Your task to perform on an android device: Show the shopping cart on costco.com. Search for apple airpods pro on costco.com, select the first entry, add it to the cart, then select checkout. Image 0: 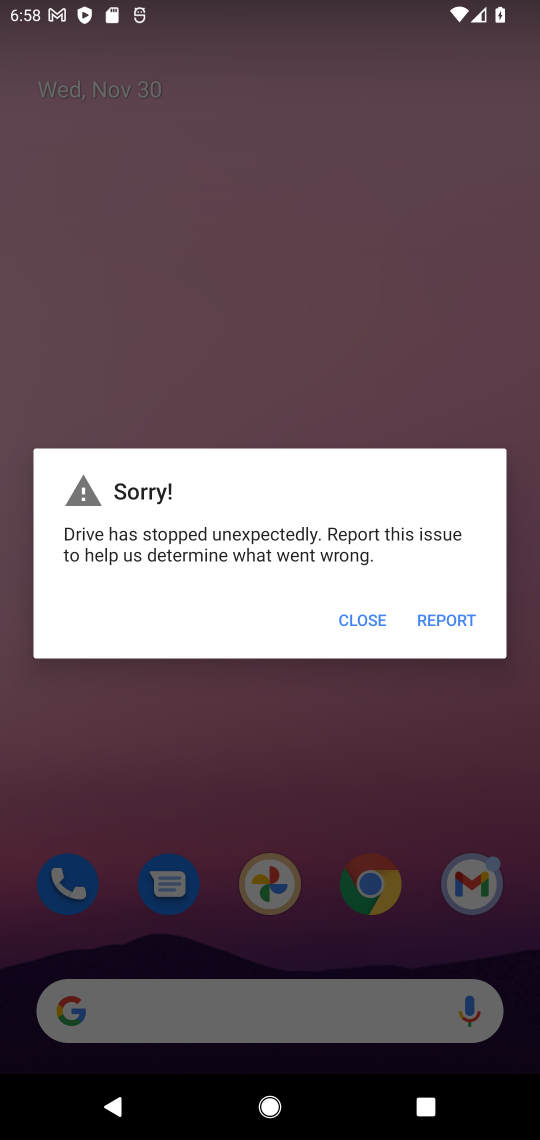
Step 0: press home button
Your task to perform on an android device: Show the shopping cart on costco.com. Search for apple airpods pro on costco.com, select the first entry, add it to the cart, then select checkout. Image 1: 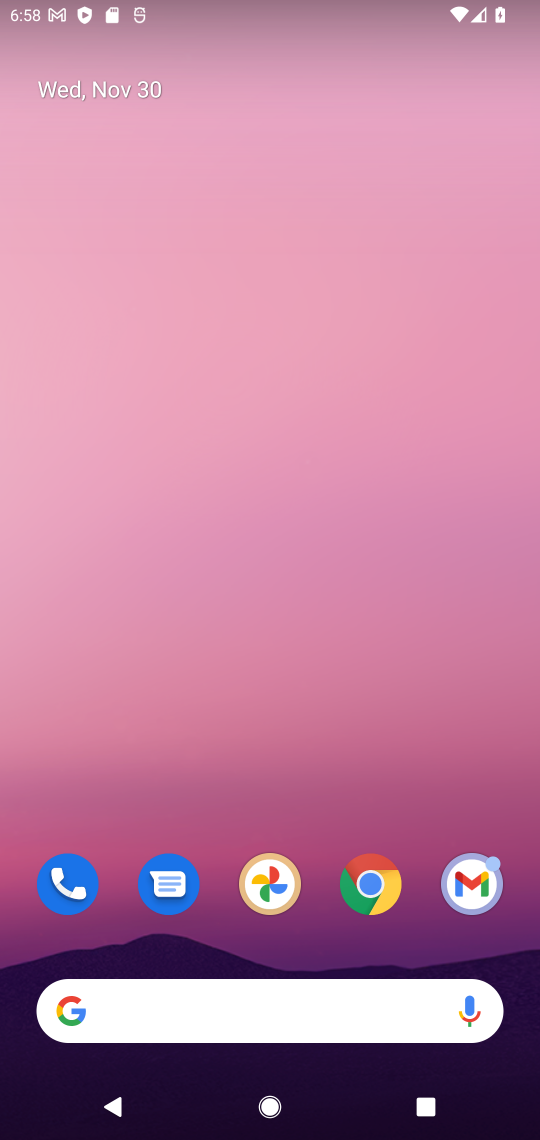
Step 1: click (358, 902)
Your task to perform on an android device: Show the shopping cart on costco.com. Search for apple airpods pro on costco.com, select the first entry, add it to the cart, then select checkout. Image 2: 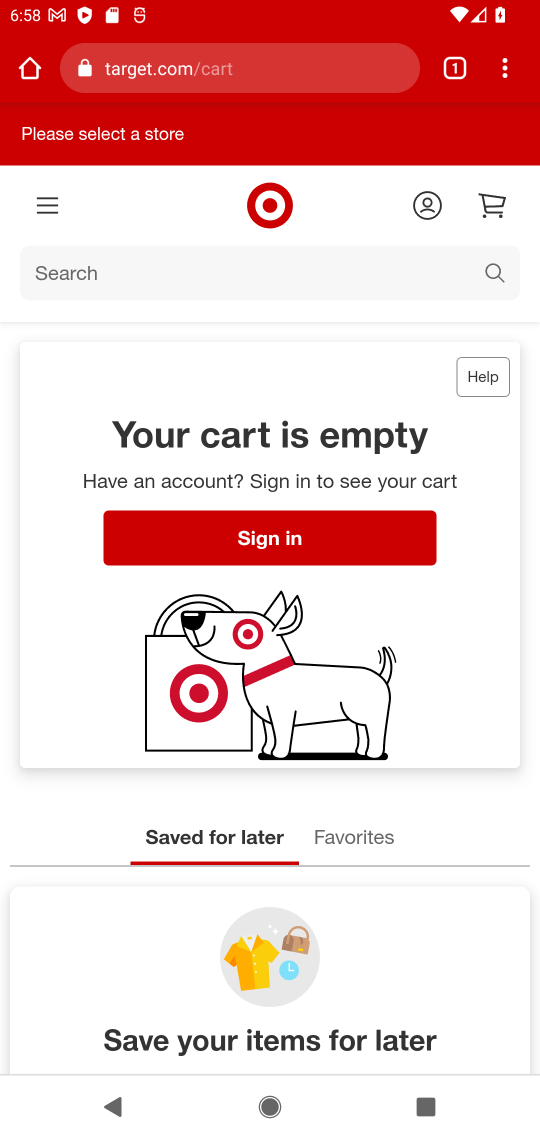
Step 2: click (206, 67)
Your task to perform on an android device: Show the shopping cart on costco.com. Search for apple airpods pro on costco.com, select the first entry, add it to the cart, then select checkout. Image 3: 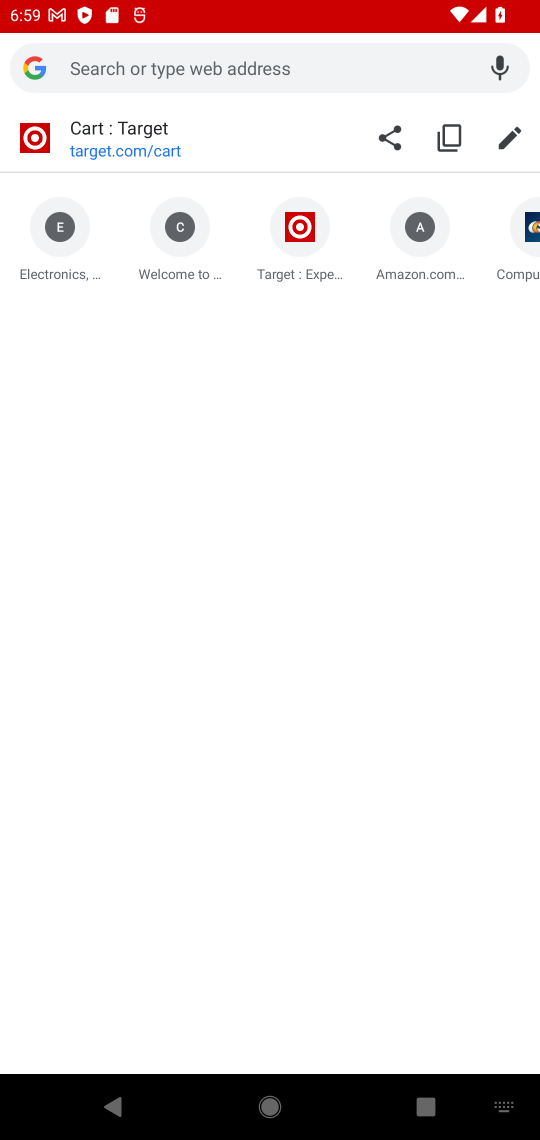
Step 3: type "costco.com"
Your task to perform on an android device: Show the shopping cart on costco.com. Search for apple airpods pro on costco.com, select the first entry, add it to the cart, then select checkout. Image 4: 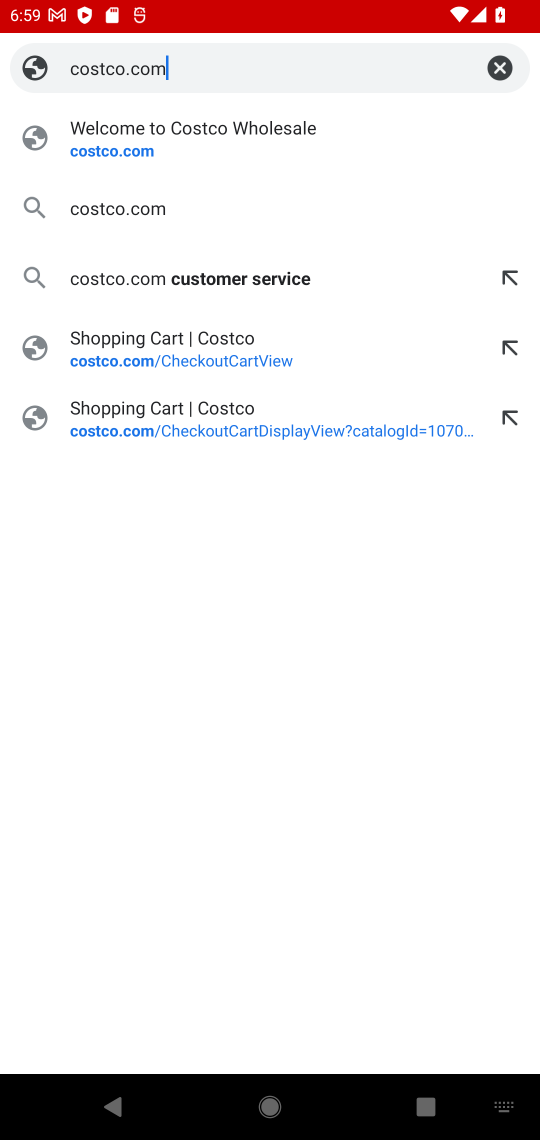
Step 4: click (105, 145)
Your task to perform on an android device: Show the shopping cart on costco.com. Search for apple airpods pro on costco.com, select the first entry, add it to the cart, then select checkout. Image 5: 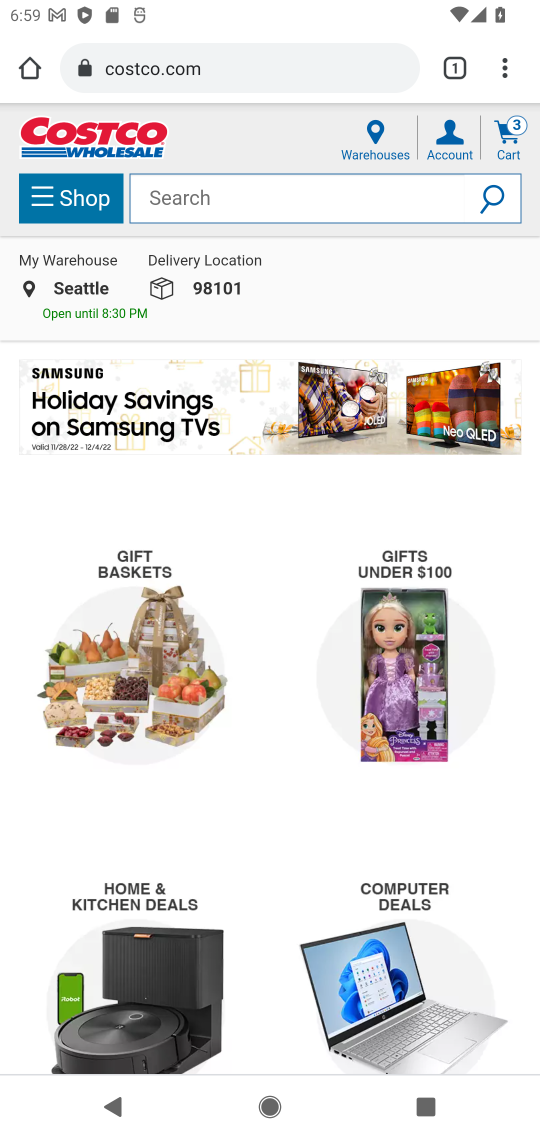
Step 5: click (505, 141)
Your task to perform on an android device: Show the shopping cart on costco.com. Search for apple airpods pro on costco.com, select the first entry, add it to the cart, then select checkout. Image 6: 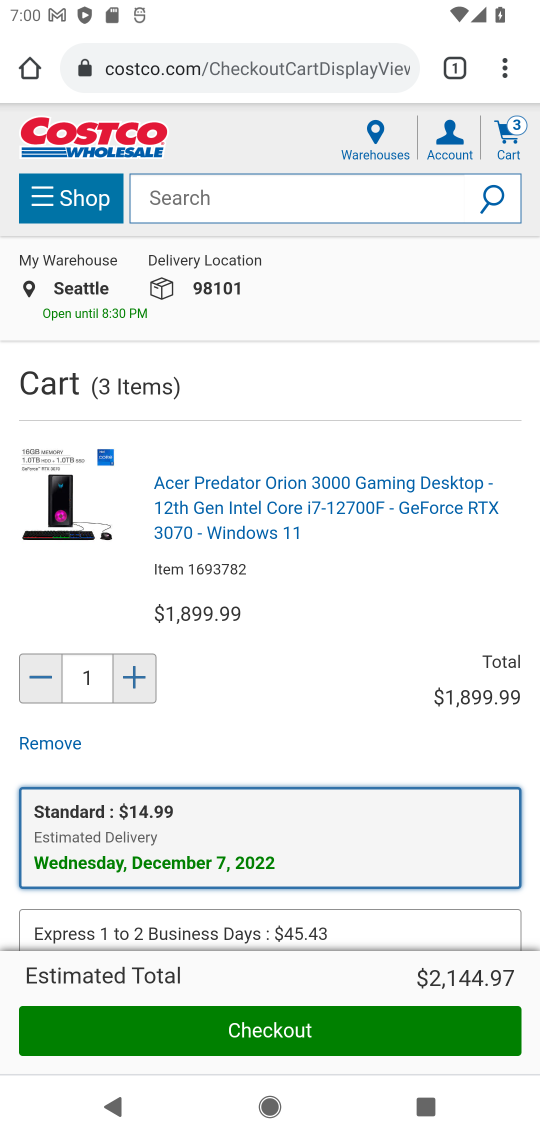
Step 6: click (185, 194)
Your task to perform on an android device: Show the shopping cart on costco.com. Search for apple airpods pro on costco.com, select the first entry, add it to the cart, then select checkout. Image 7: 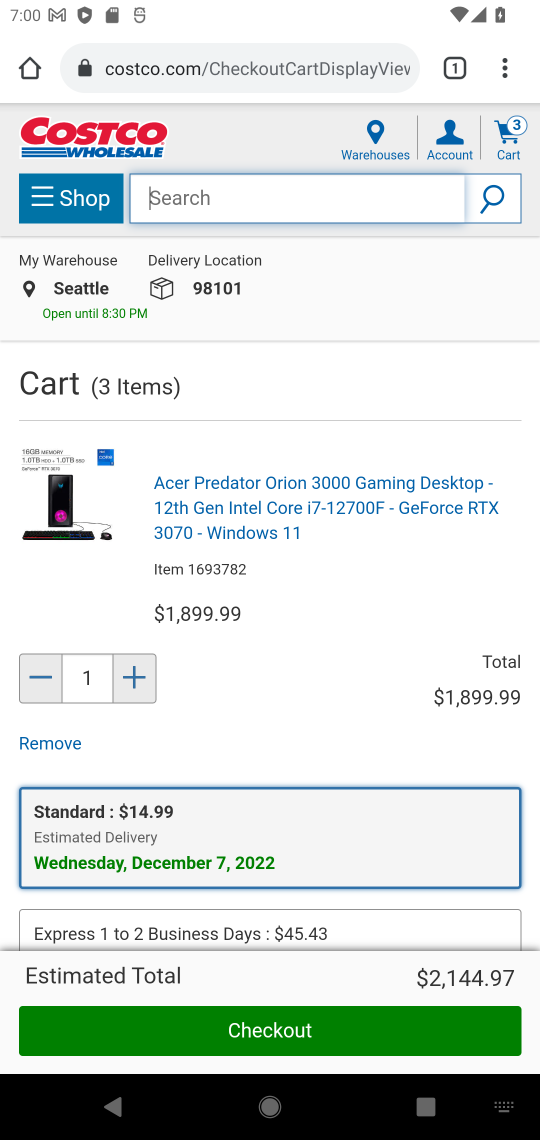
Step 7: type "apple airpods pro"
Your task to perform on an android device: Show the shopping cart on costco.com. Search for apple airpods pro on costco.com, select the first entry, add it to the cart, then select checkout. Image 8: 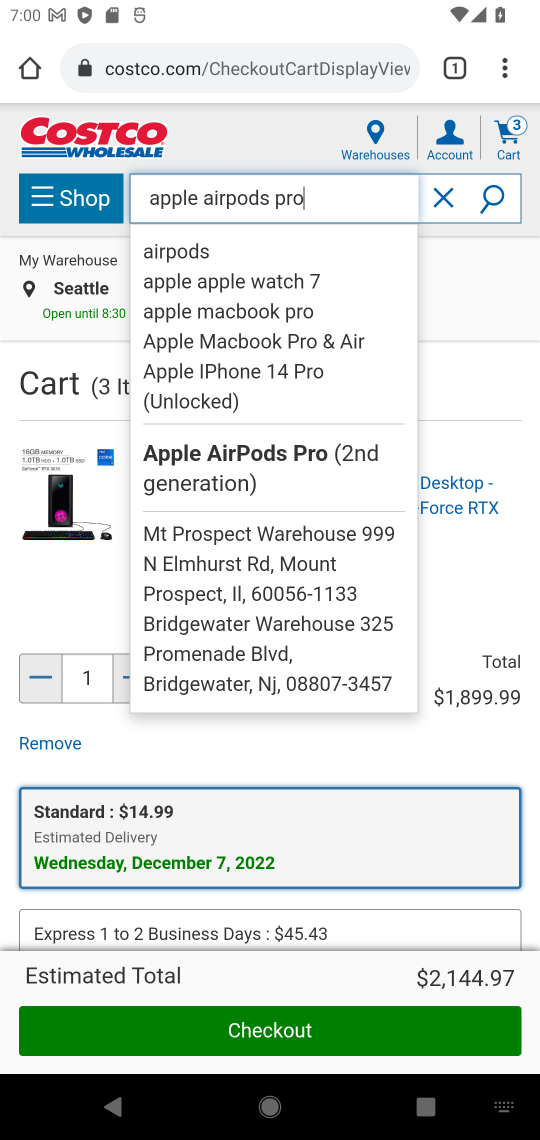
Step 8: click (497, 200)
Your task to perform on an android device: Show the shopping cart on costco.com. Search for apple airpods pro on costco.com, select the first entry, add it to the cart, then select checkout. Image 9: 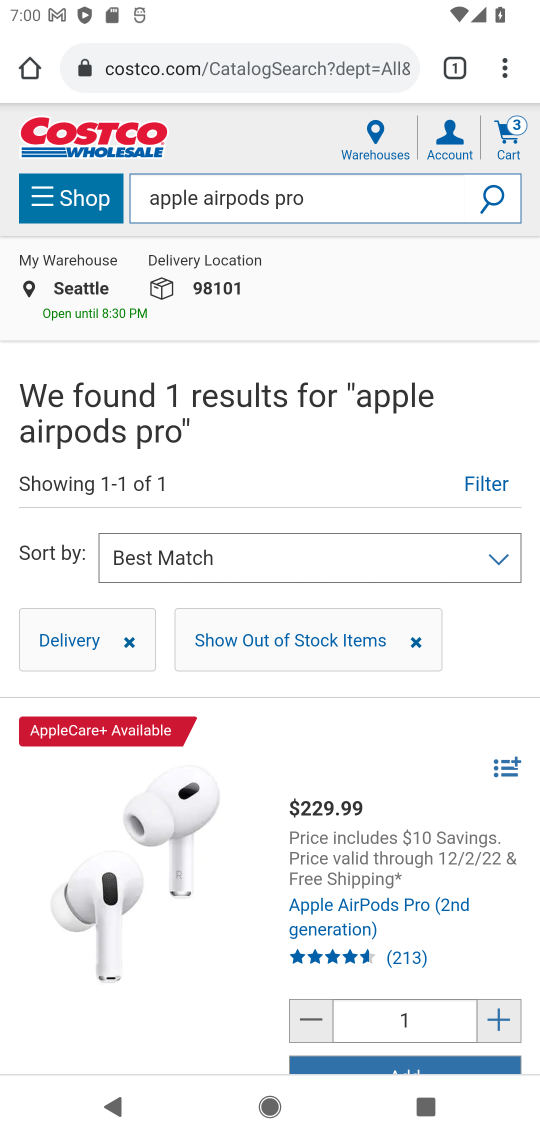
Step 9: drag from (260, 757) to (259, 370)
Your task to perform on an android device: Show the shopping cart on costco.com. Search for apple airpods pro on costco.com, select the first entry, add it to the cart, then select checkout. Image 10: 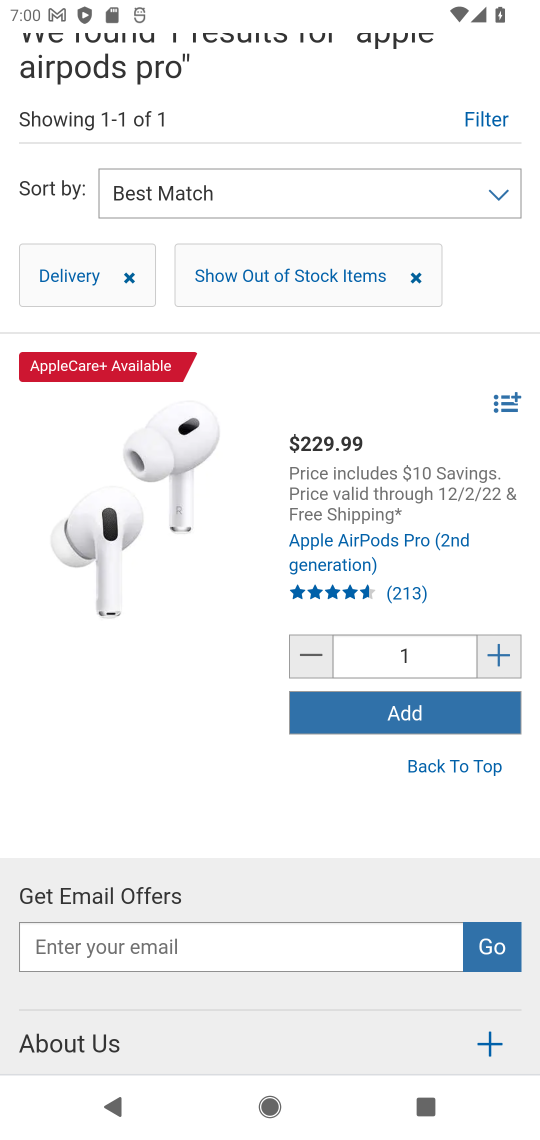
Step 10: click (416, 713)
Your task to perform on an android device: Show the shopping cart on costco.com. Search for apple airpods pro on costco.com, select the first entry, add it to the cart, then select checkout. Image 11: 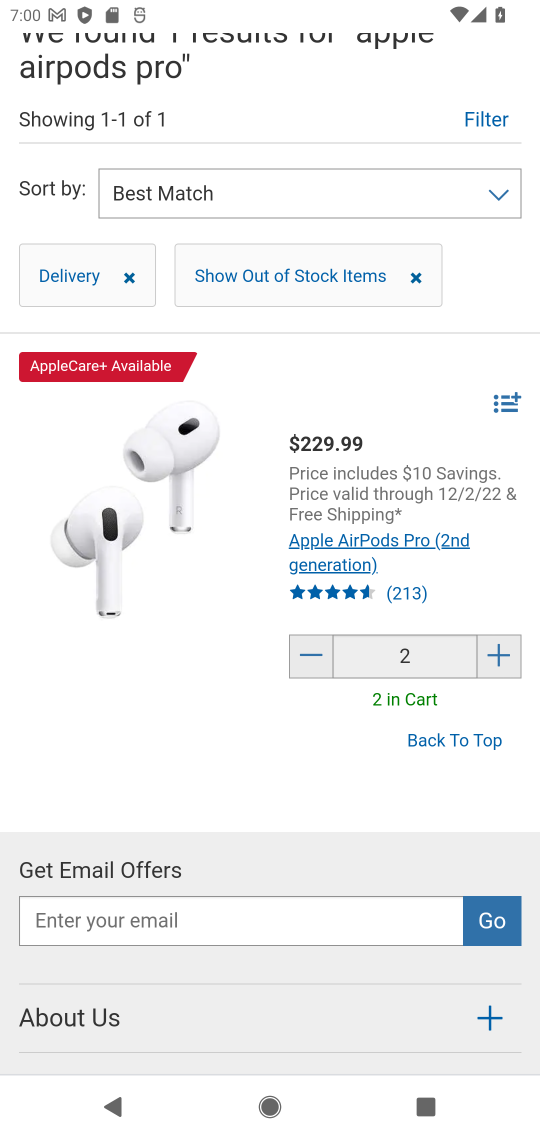
Step 11: drag from (413, 201) to (413, 609)
Your task to perform on an android device: Show the shopping cart on costco.com. Search for apple airpods pro on costco.com, select the first entry, add it to the cart, then select checkout. Image 12: 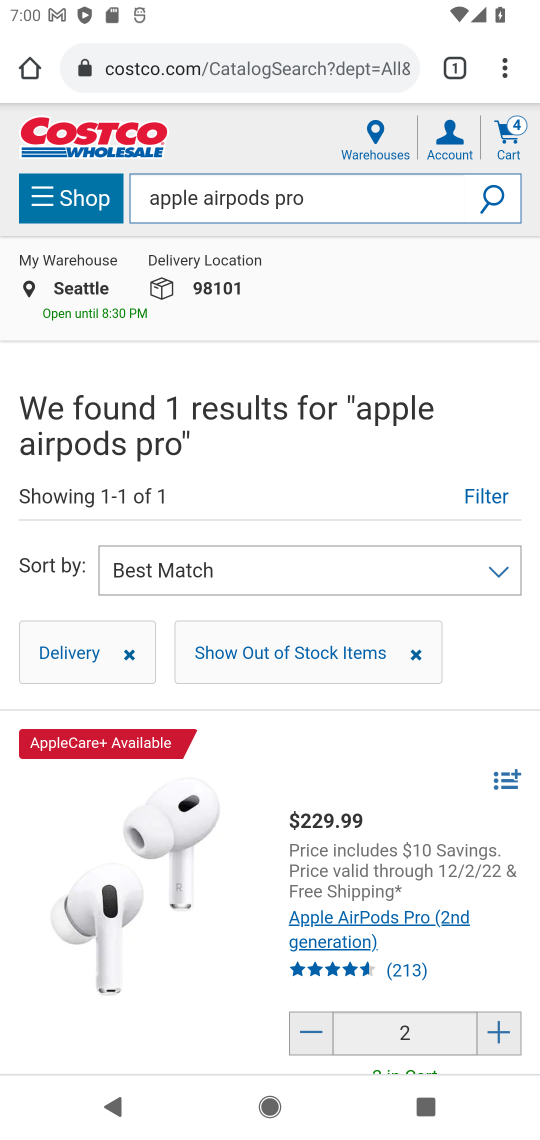
Step 12: click (506, 153)
Your task to perform on an android device: Show the shopping cart on costco.com. Search for apple airpods pro on costco.com, select the first entry, add it to the cart, then select checkout. Image 13: 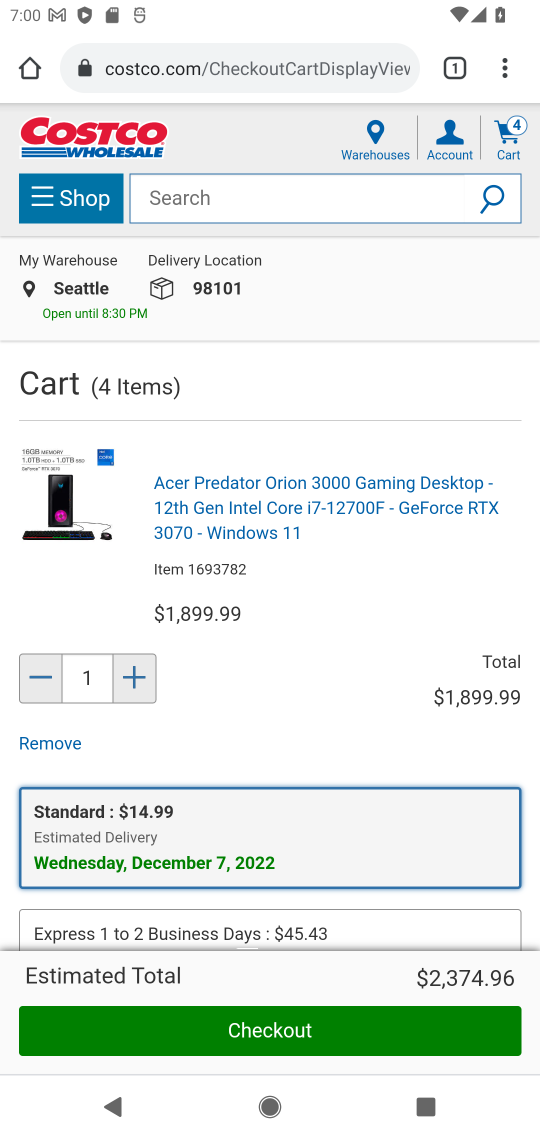
Step 13: click (313, 1018)
Your task to perform on an android device: Show the shopping cart on costco.com. Search for apple airpods pro on costco.com, select the first entry, add it to the cart, then select checkout. Image 14: 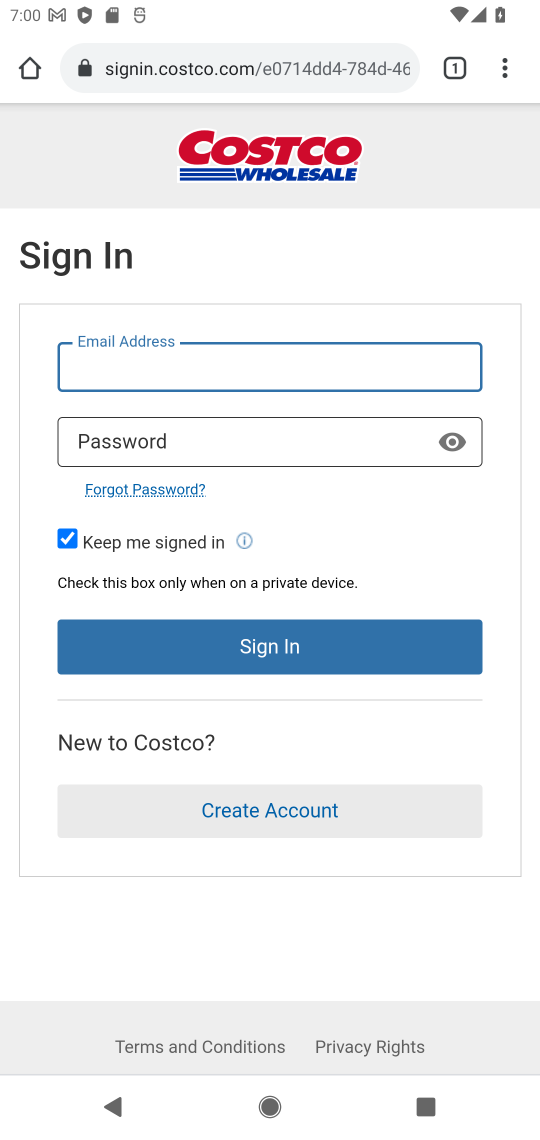
Step 14: task complete